Your task to perform on an android device: open app "ZOOM Cloud Meetings" (install if not already installed), go to login, and select forgot password Image 0: 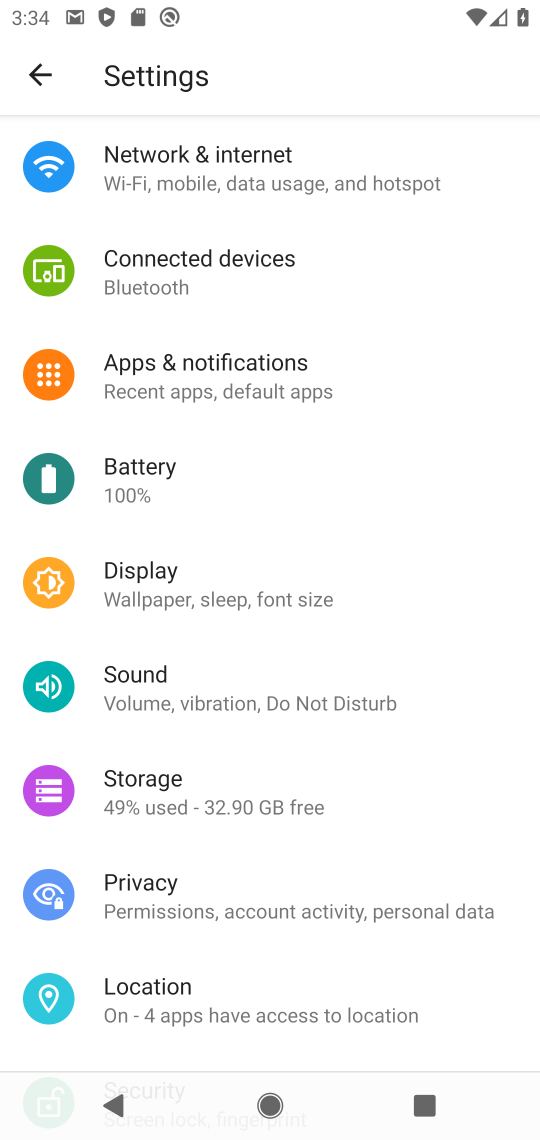
Step 0: press home button
Your task to perform on an android device: open app "ZOOM Cloud Meetings" (install if not already installed), go to login, and select forgot password Image 1: 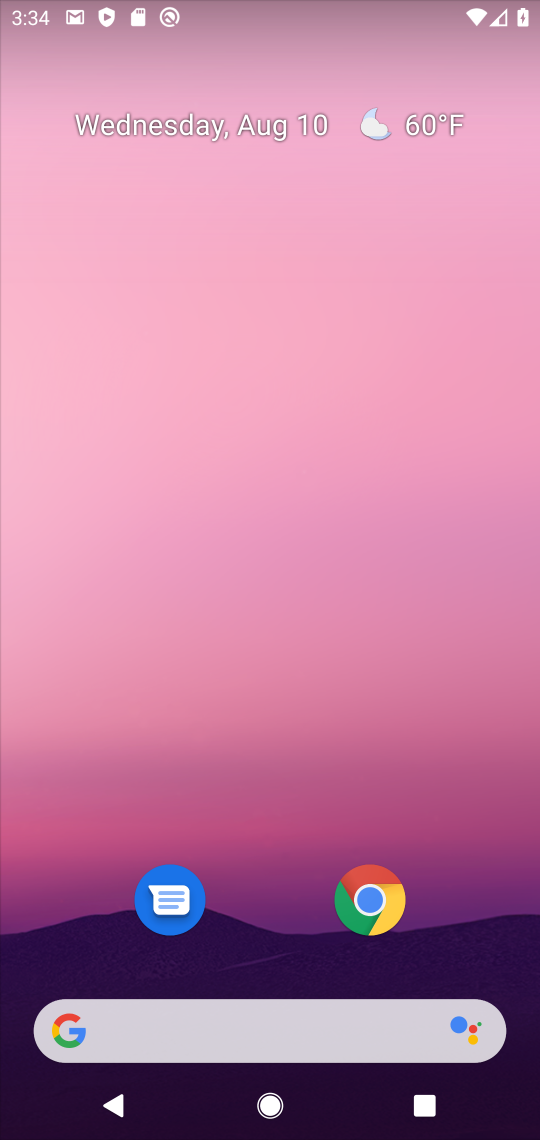
Step 1: drag from (280, 919) to (322, 774)
Your task to perform on an android device: open app "ZOOM Cloud Meetings" (install if not already installed), go to login, and select forgot password Image 2: 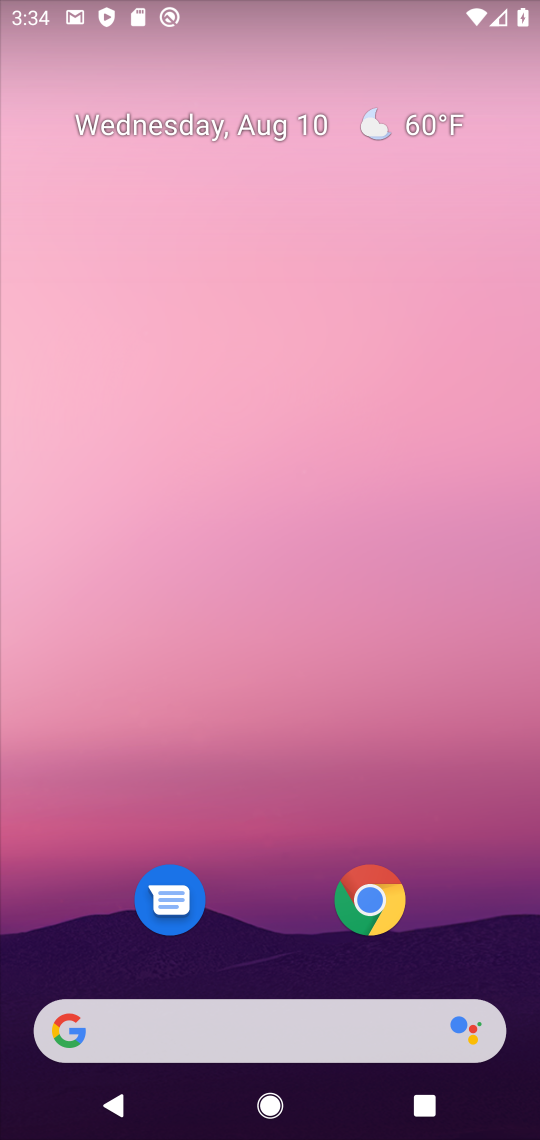
Step 2: drag from (350, 778) to (236, 362)
Your task to perform on an android device: open app "ZOOM Cloud Meetings" (install if not already installed), go to login, and select forgot password Image 3: 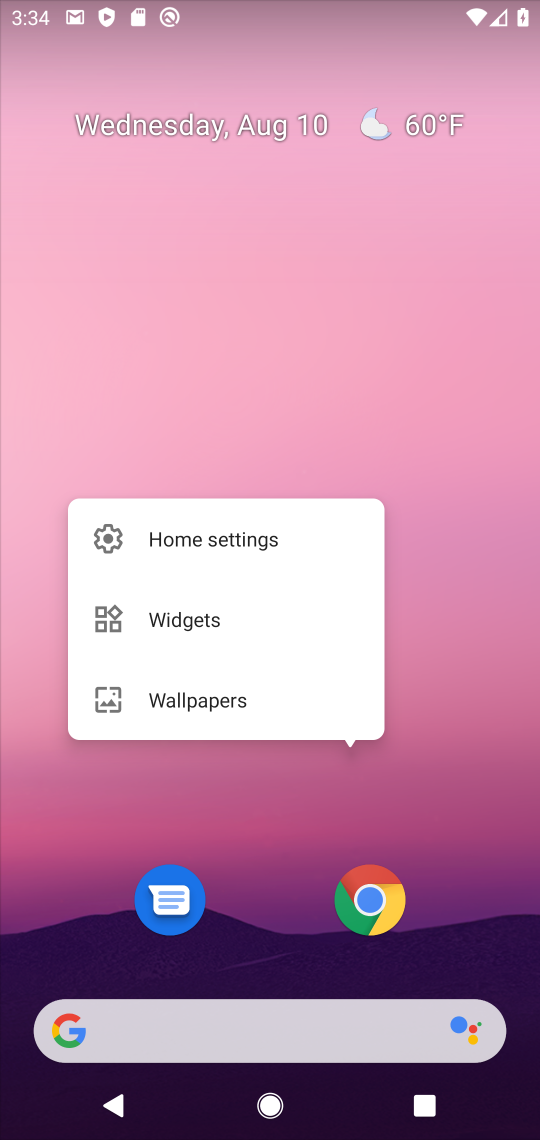
Step 3: click (447, 795)
Your task to perform on an android device: open app "ZOOM Cloud Meetings" (install if not already installed), go to login, and select forgot password Image 4: 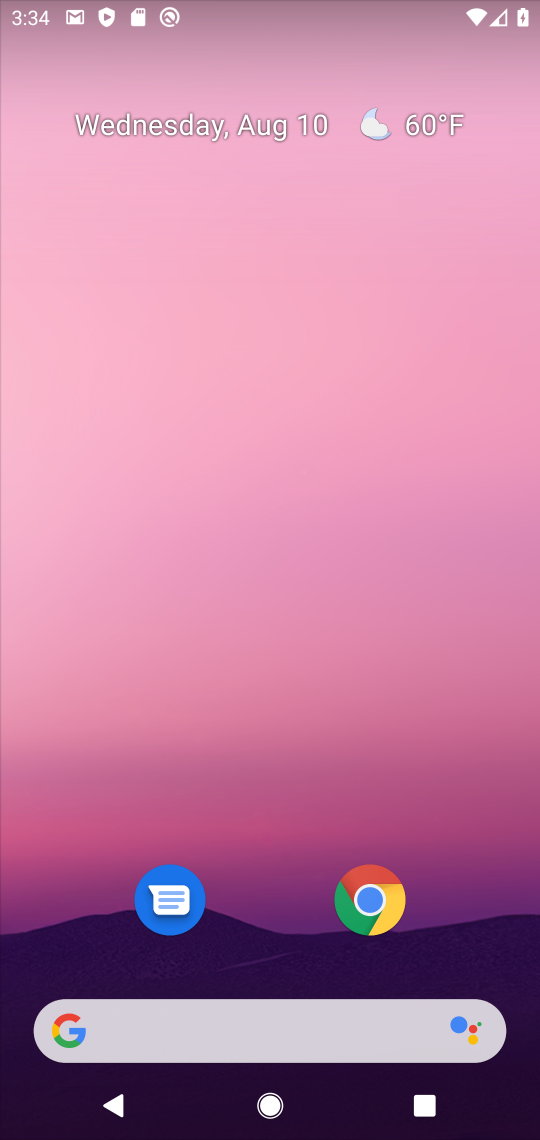
Step 4: drag from (282, 849) to (288, 298)
Your task to perform on an android device: open app "ZOOM Cloud Meetings" (install if not already installed), go to login, and select forgot password Image 5: 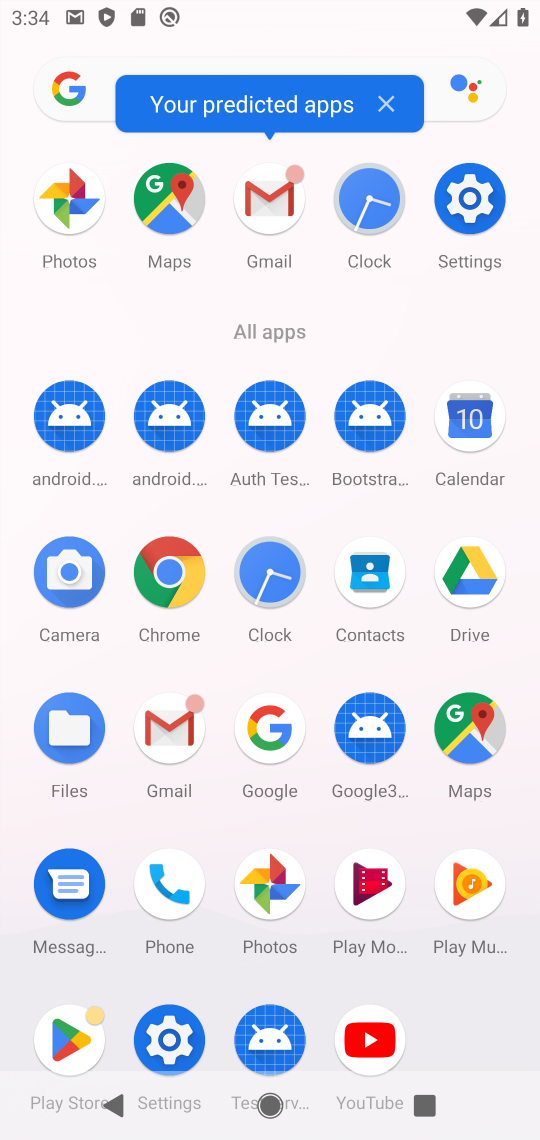
Step 5: click (63, 1037)
Your task to perform on an android device: open app "ZOOM Cloud Meetings" (install if not already installed), go to login, and select forgot password Image 6: 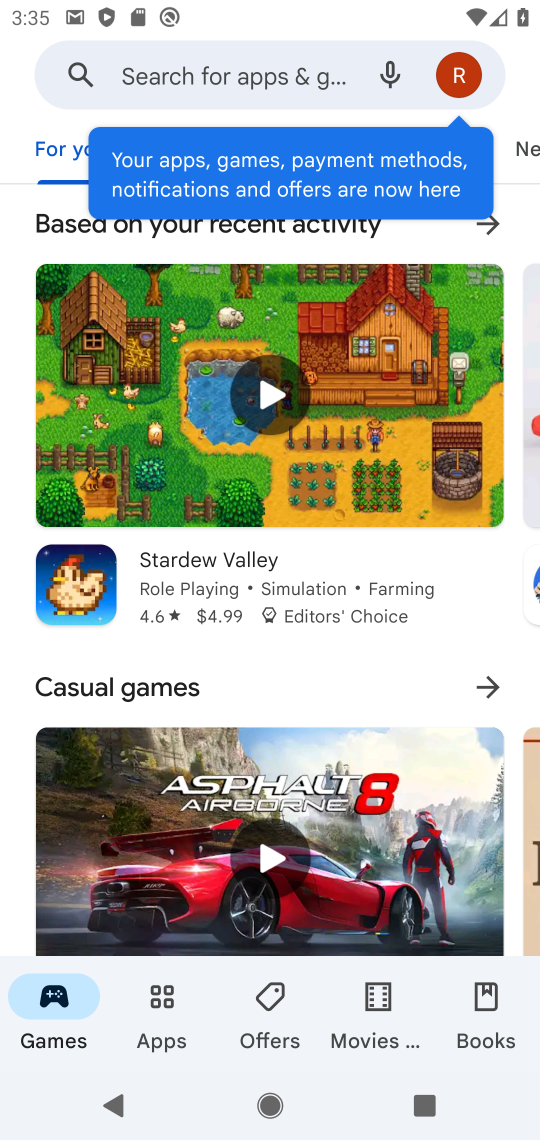
Step 6: click (240, 74)
Your task to perform on an android device: open app "ZOOM Cloud Meetings" (install if not already installed), go to login, and select forgot password Image 7: 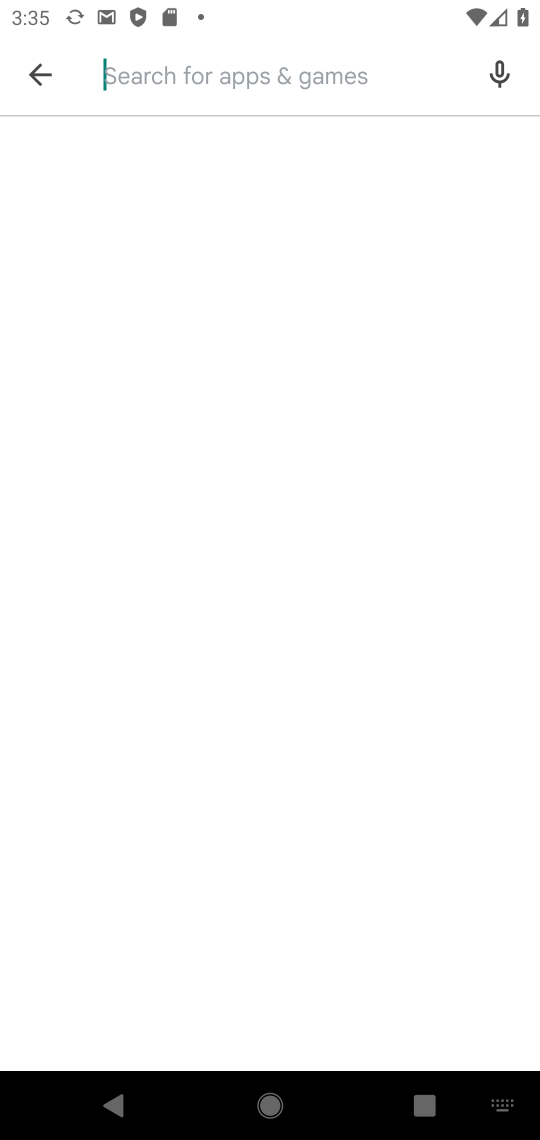
Step 7: type "zoom cloud meetings"
Your task to perform on an android device: open app "ZOOM Cloud Meetings" (install if not already installed), go to login, and select forgot password Image 8: 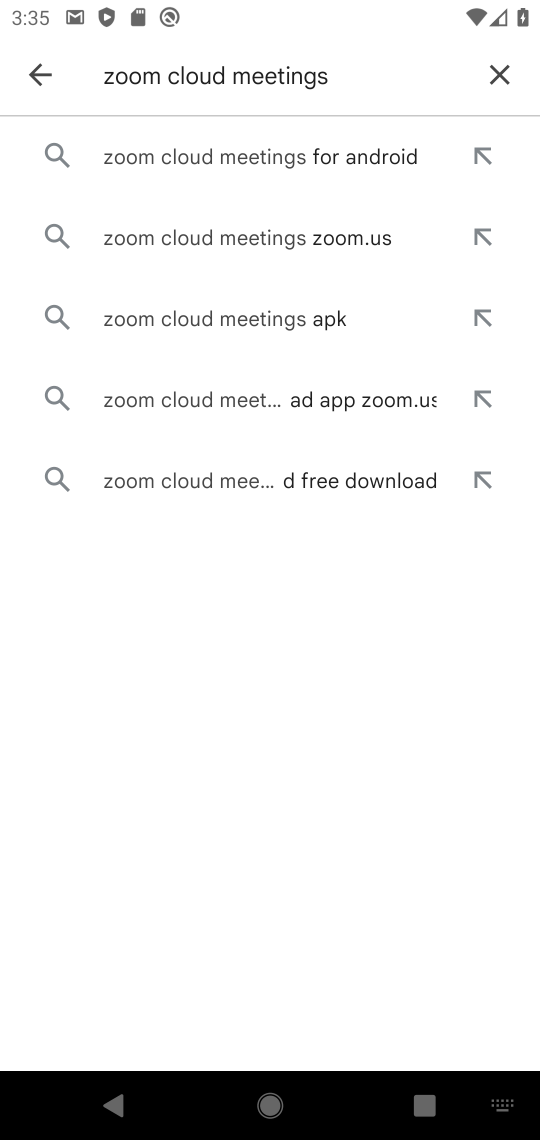
Step 8: click (293, 167)
Your task to perform on an android device: open app "ZOOM Cloud Meetings" (install if not already installed), go to login, and select forgot password Image 9: 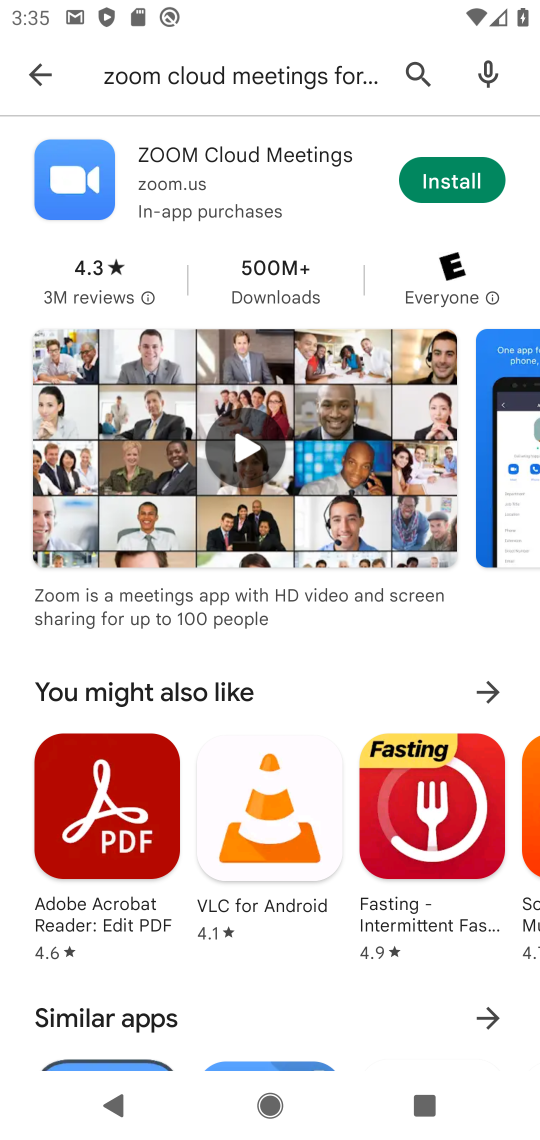
Step 9: click (443, 191)
Your task to perform on an android device: open app "ZOOM Cloud Meetings" (install if not already installed), go to login, and select forgot password Image 10: 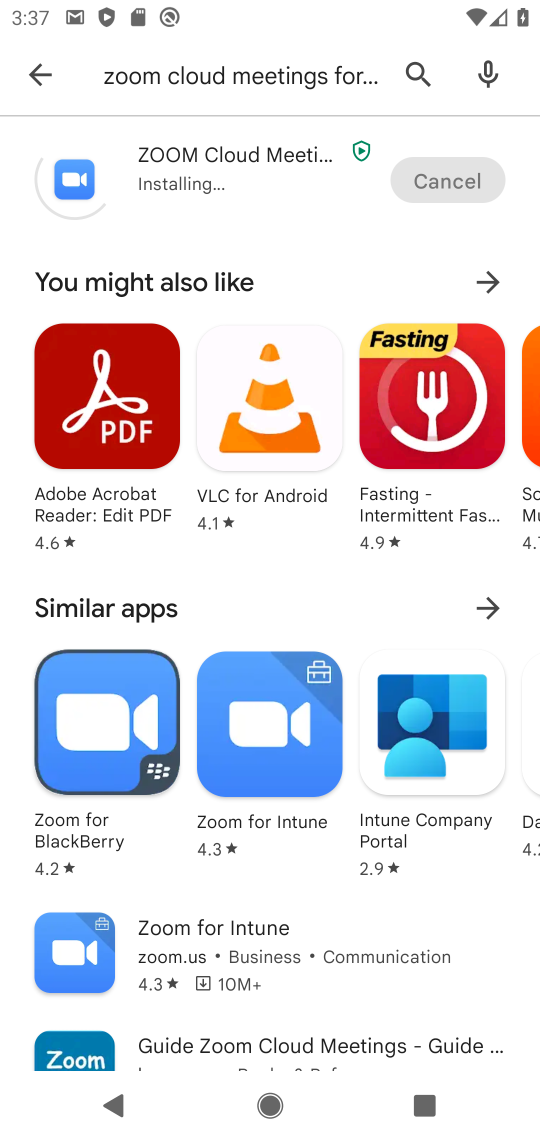
Step 10: click (272, 166)
Your task to perform on an android device: open app "ZOOM Cloud Meetings" (install if not already installed), go to login, and select forgot password Image 11: 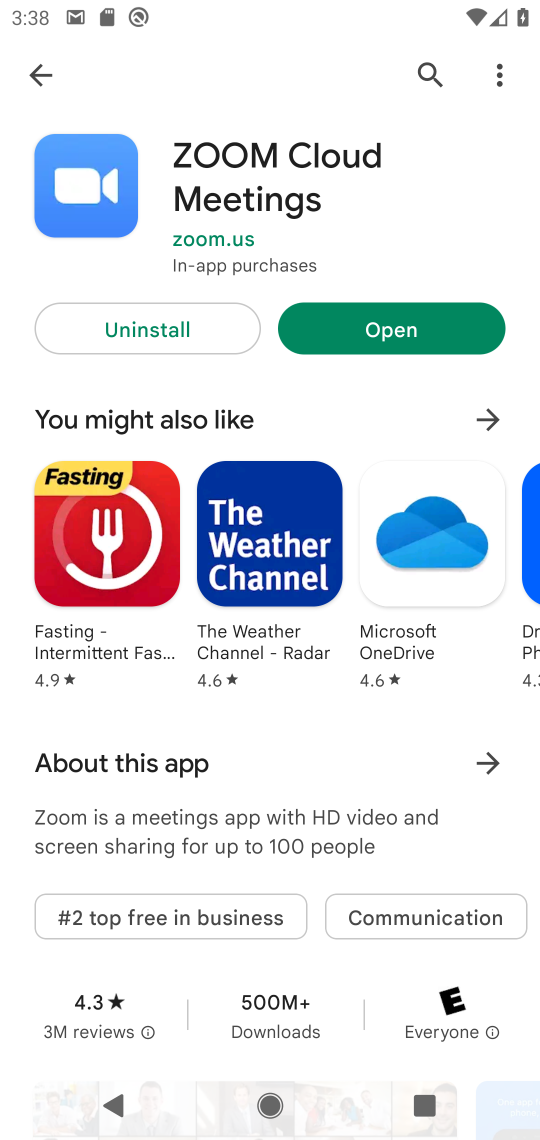
Step 11: click (453, 330)
Your task to perform on an android device: open app "ZOOM Cloud Meetings" (install if not already installed), go to login, and select forgot password Image 12: 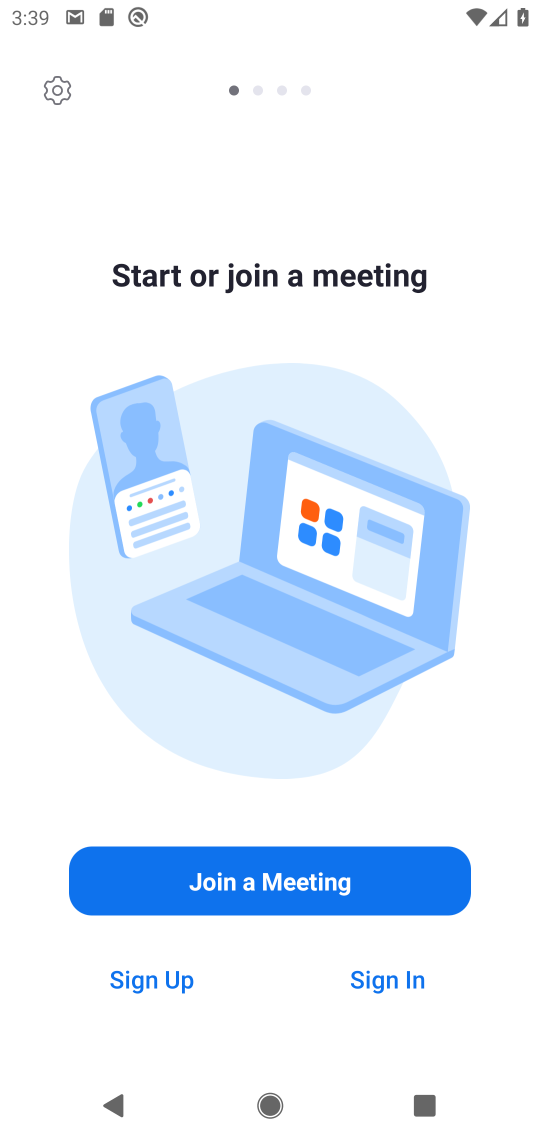
Step 12: click (177, 985)
Your task to perform on an android device: open app "ZOOM Cloud Meetings" (install if not already installed), go to login, and select forgot password Image 13: 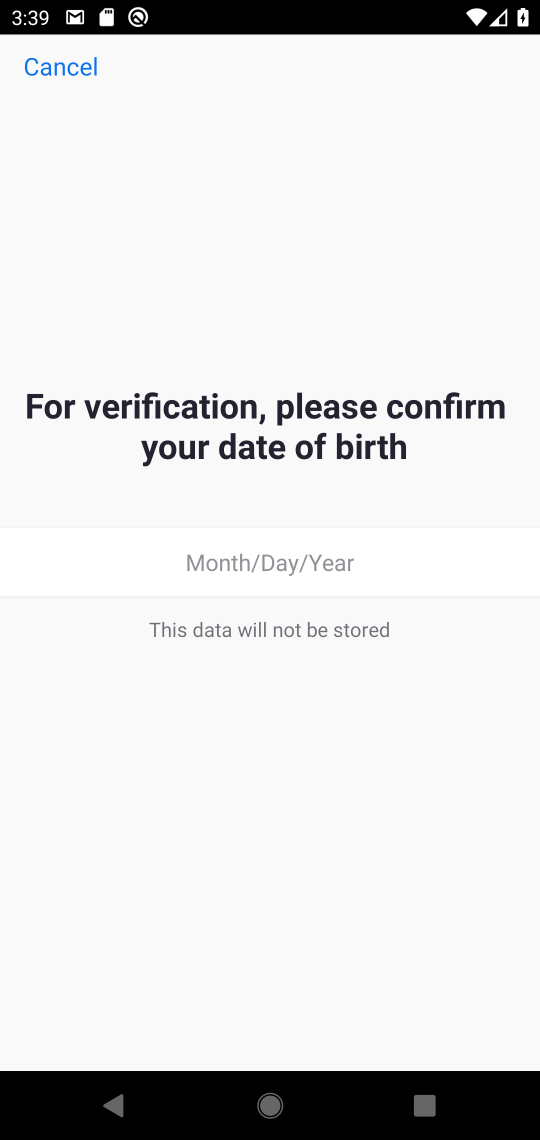
Step 13: click (371, 972)
Your task to perform on an android device: open app "ZOOM Cloud Meetings" (install if not already installed), go to login, and select forgot password Image 14: 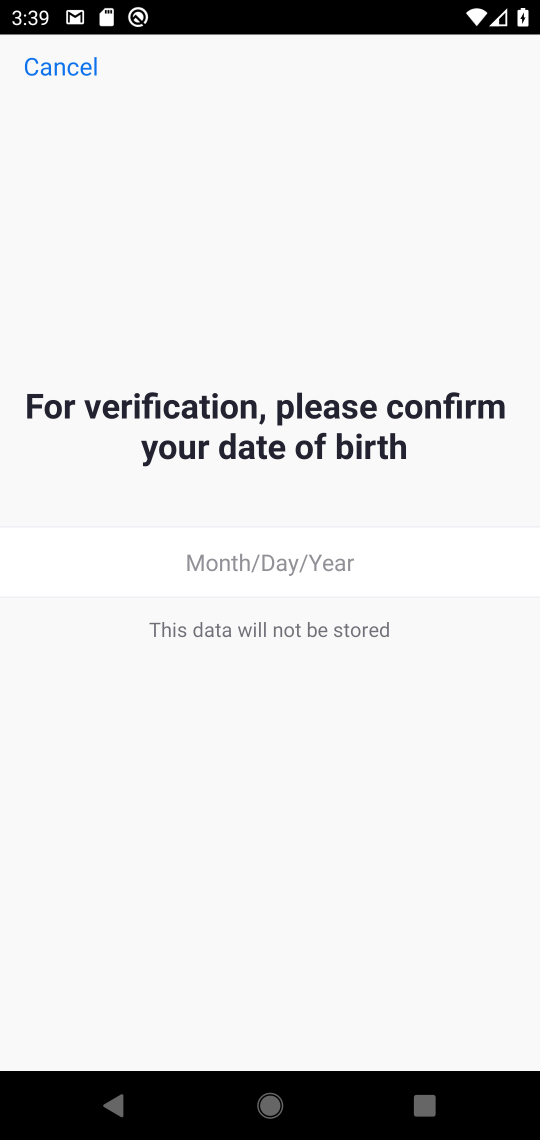
Step 14: click (42, 77)
Your task to perform on an android device: open app "ZOOM Cloud Meetings" (install if not already installed), go to login, and select forgot password Image 15: 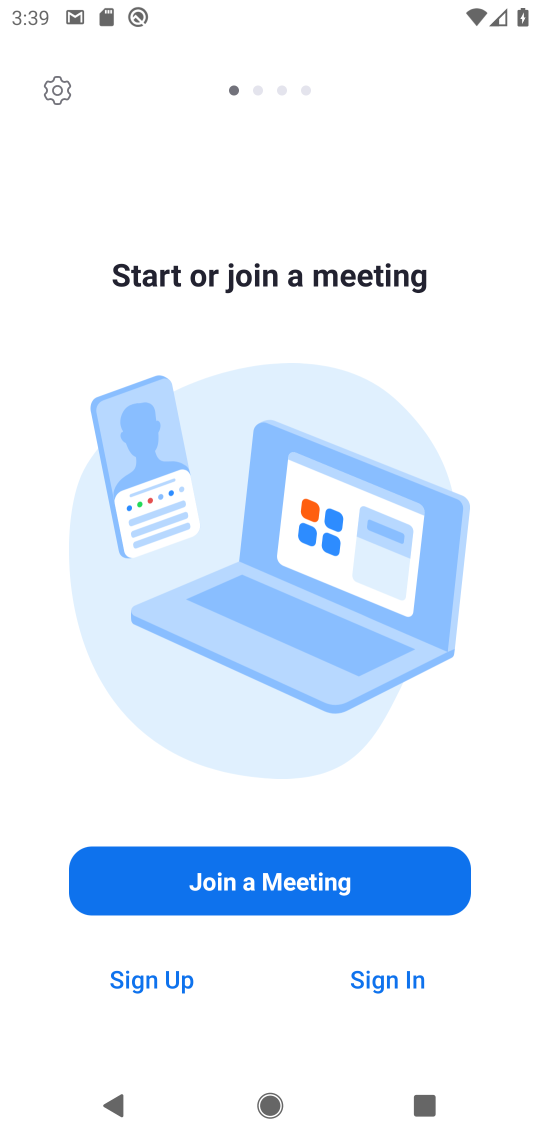
Step 15: click (415, 976)
Your task to perform on an android device: open app "ZOOM Cloud Meetings" (install if not already installed), go to login, and select forgot password Image 16: 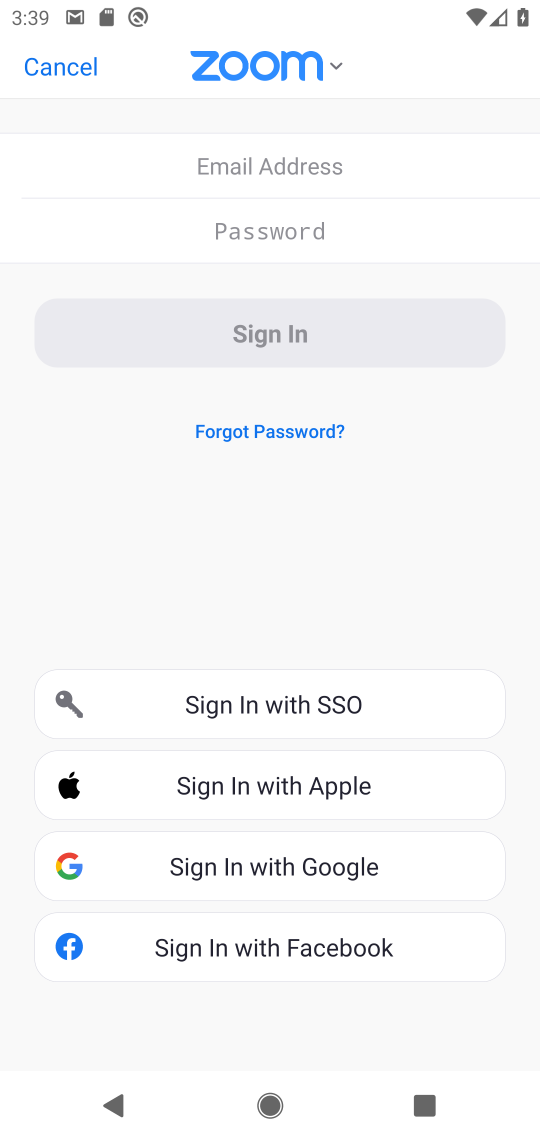
Step 16: click (312, 433)
Your task to perform on an android device: open app "ZOOM Cloud Meetings" (install if not already installed), go to login, and select forgot password Image 17: 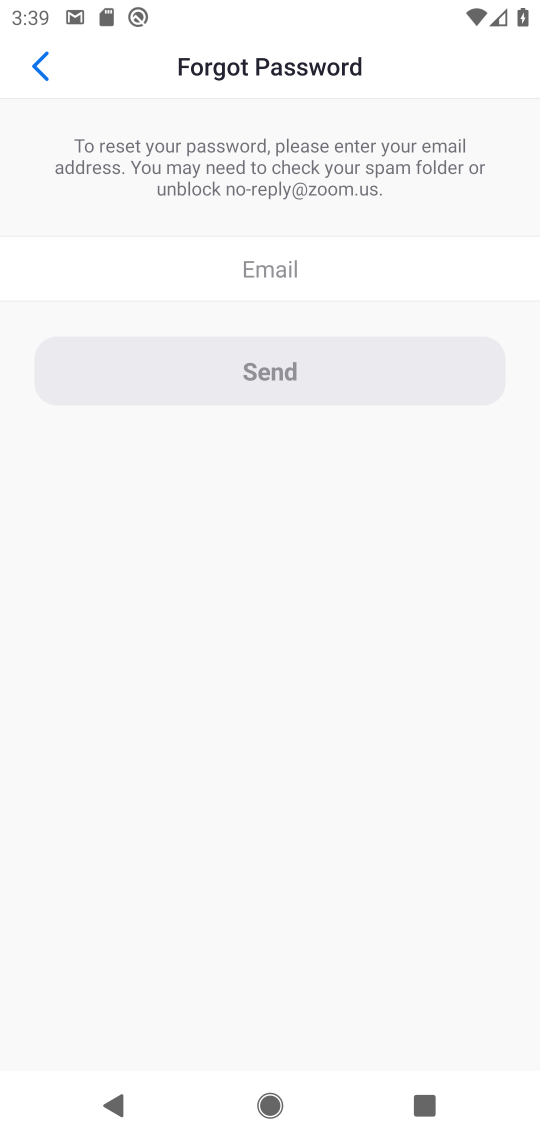
Step 17: task complete